Your task to perform on an android device: Open Youtube and go to the subscriptions tab Image 0: 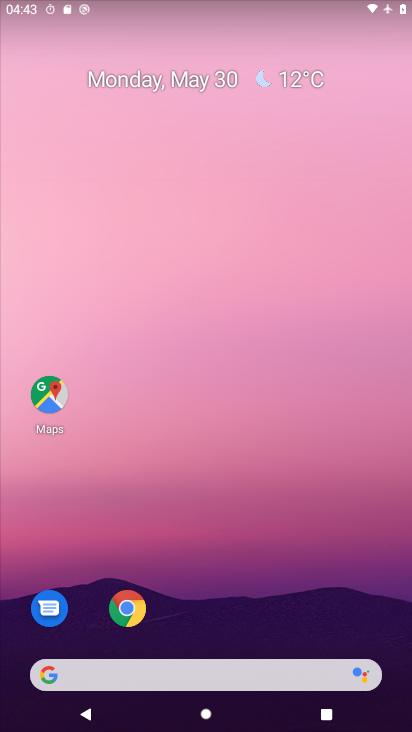
Step 0: drag from (337, 421) to (136, 25)
Your task to perform on an android device: Open Youtube and go to the subscriptions tab Image 1: 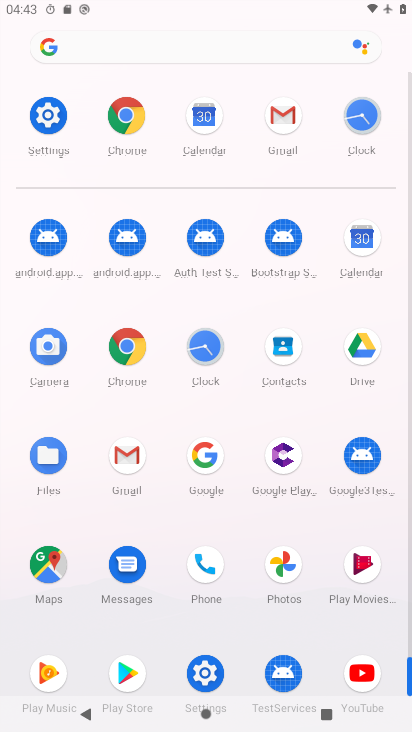
Step 1: click (371, 674)
Your task to perform on an android device: Open Youtube and go to the subscriptions tab Image 2: 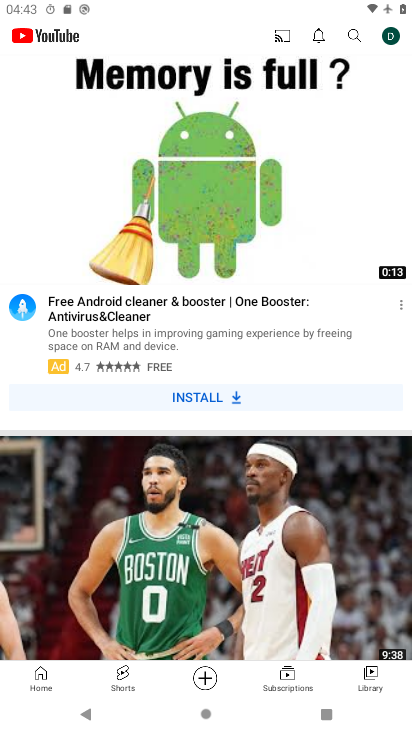
Step 2: click (299, 685)
Your task to perform on an android device: Open Youtube and go to the subscriptions tab Image 3: 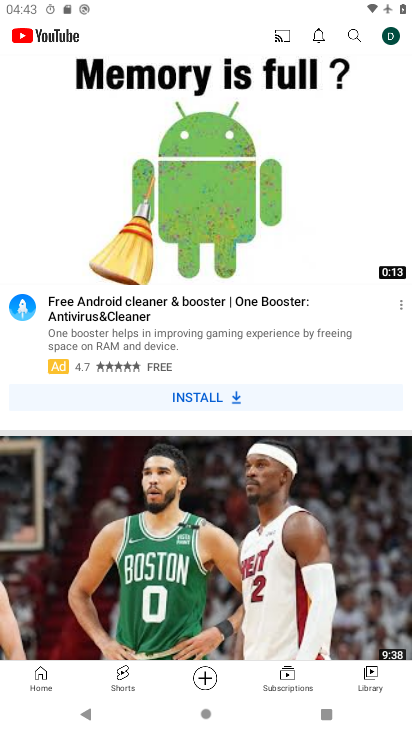
Step 3: task complete